Your task to perform on an android device: move a message to another label in the gmail app Image 0: 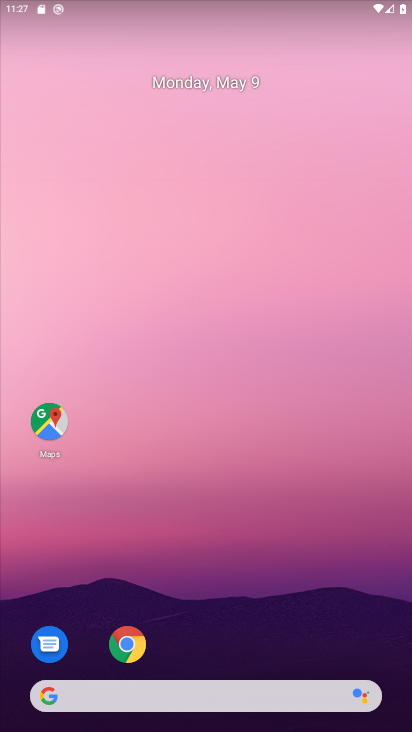
Step 0: drag from (82, 520) to (259, 66)
Your task to perform on an android device: move a message to another label in the gmail app Image 1: 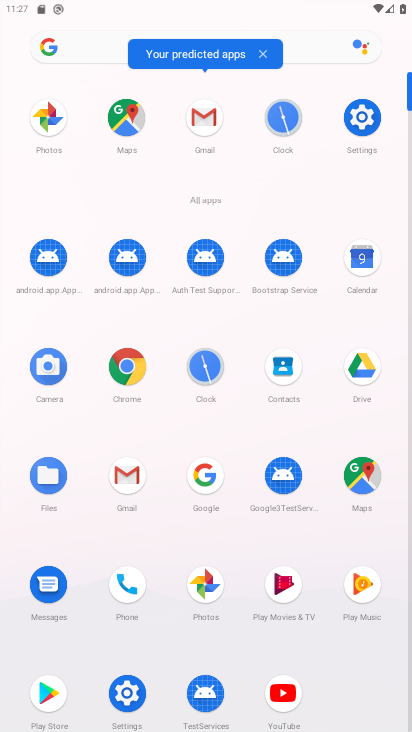
Step 1: click (206, 131)
Your task to perform on an android device: move a message to another label in the gmail app Image 2: 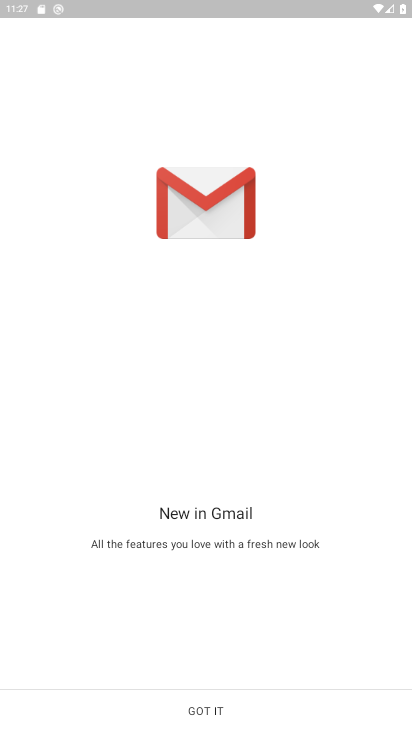
Step 2: click (245, 712)
Your task to perform on an android device: move a message to another label in the gmail app Image 3: 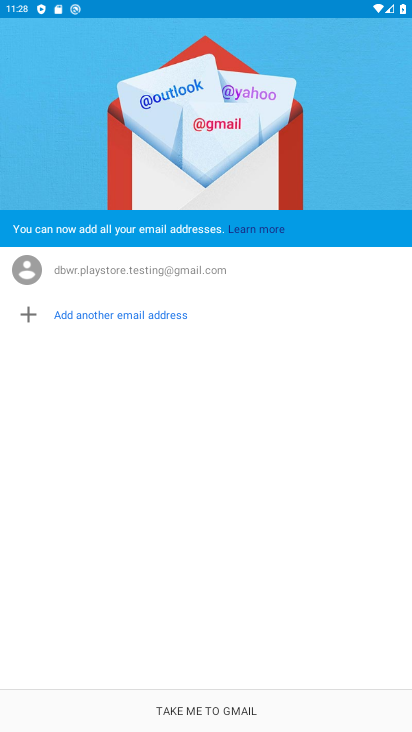
Step 3: click (182, 723)
Your task to perform on an android device: move a message to another label in the gmail app Image 4: 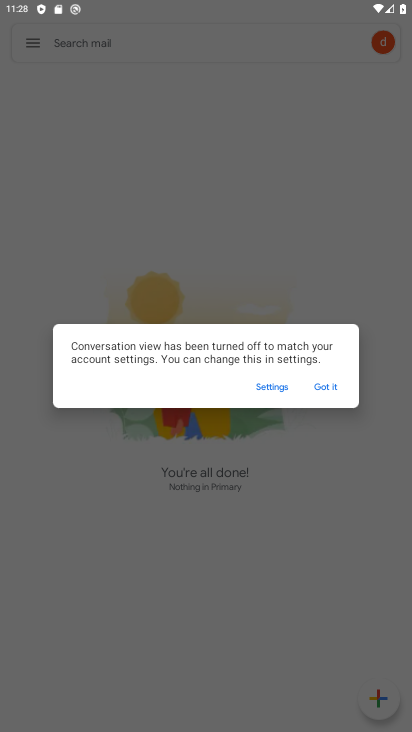
Step 4: click (318, 386)
Your task to perform on an android device: move a message to another label in the gmail app Image 5: 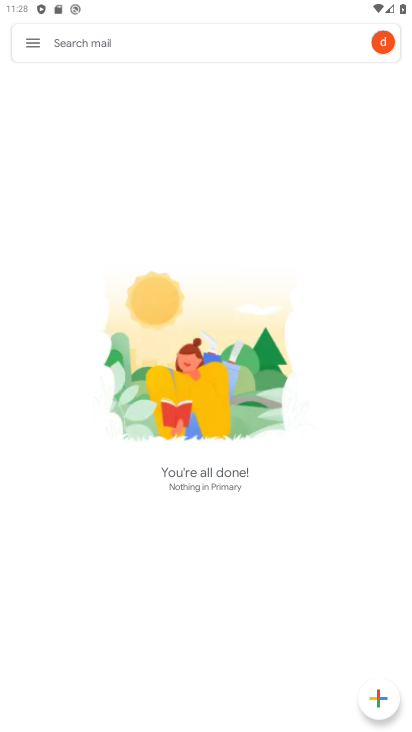
Step 5: click (37, 36)
Your task to perform on an android device: move a message to another label in the gmail app Image 6: 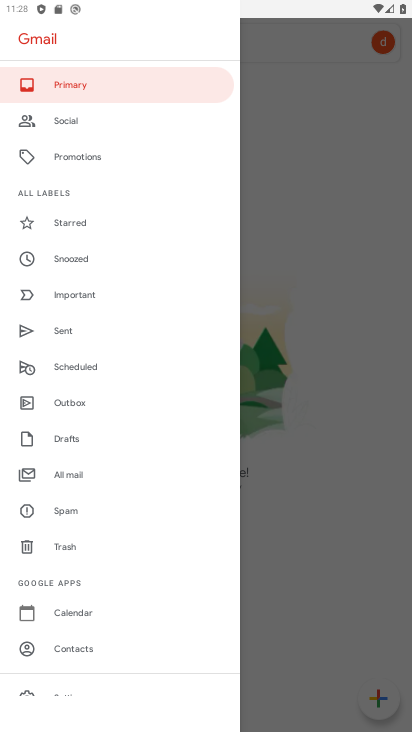
Step 6: drag from (106, 162) to (116, 457)
Your task to perform on an android device: move a message to another label in the gmail app Image 7: 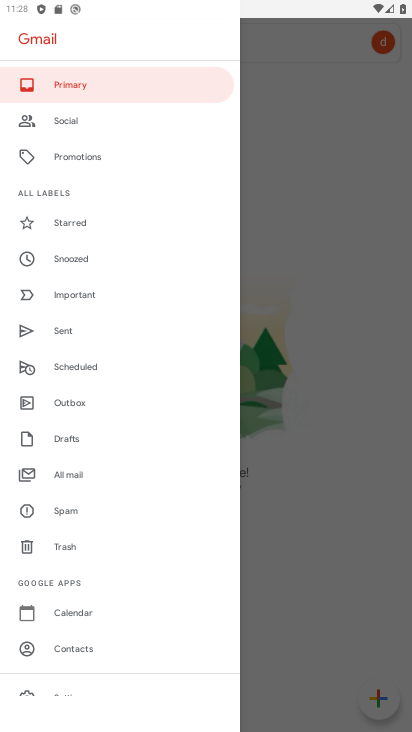
Step 7: click (83, 468)
Your task to perform on an android device: move a message to another label in the gmail app Image 8: 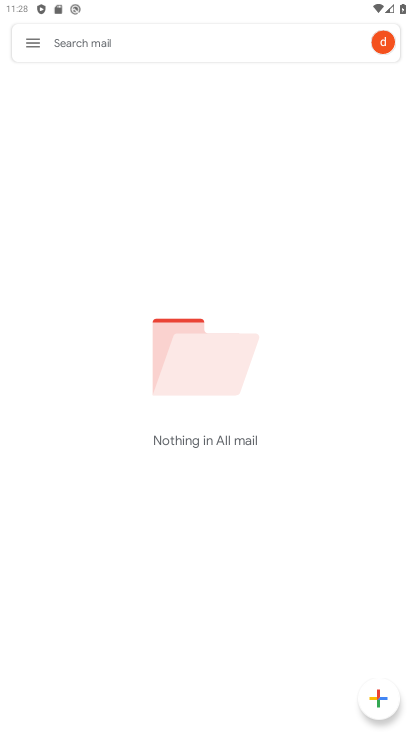
Step 8: task complete